Your task to perform on an android device: show emergency info Image 0: 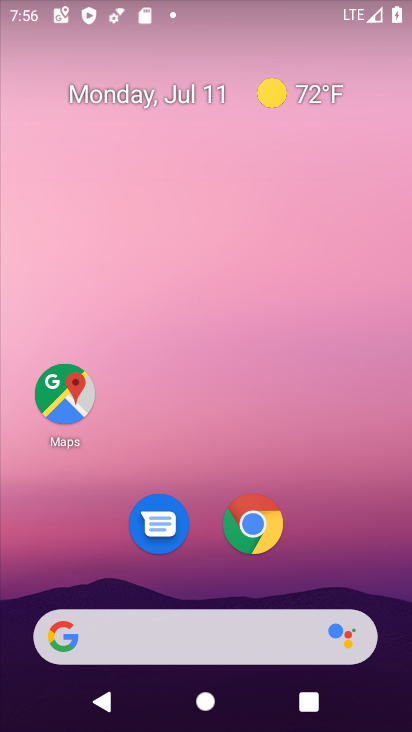
Step 0: drag from (329, 522) to (328, 3)
Your task to perform on an android device: show emergency info Image 1: 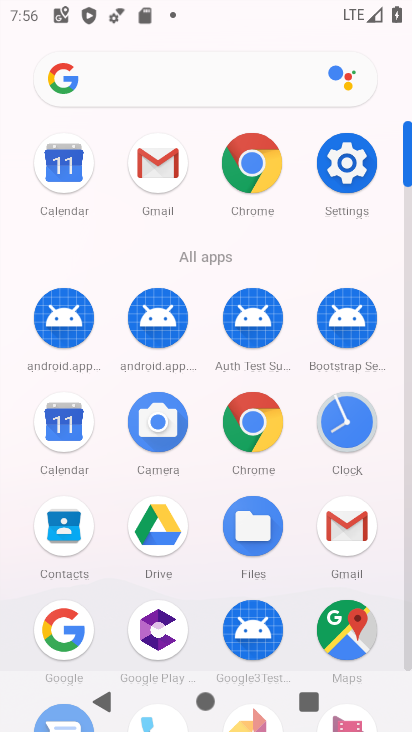
Step 1: click (349, 163)
Your task to perform on an android device: show emergency info Image 2: 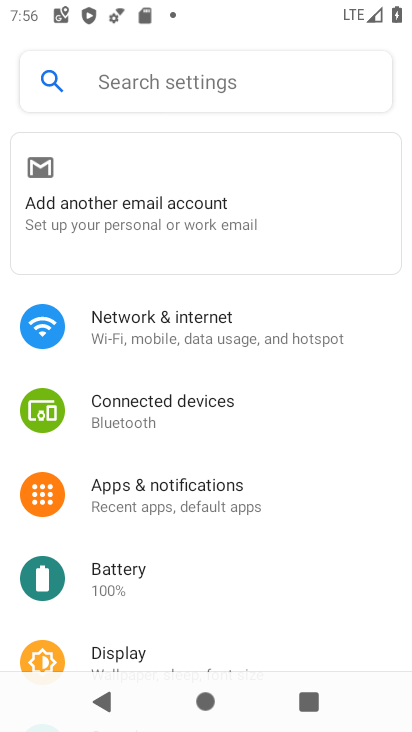
Step 2: drag from (218, 599) to (230, 0)
Your task to perform on an android device: show emergency info Image 3: 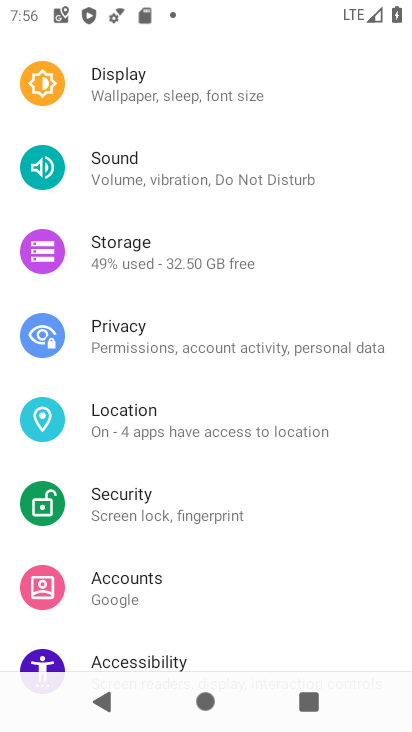
Step 3: drag from (236, 626) to (248, 22)
Your task to perform on an android device: show emergency info Image 4: 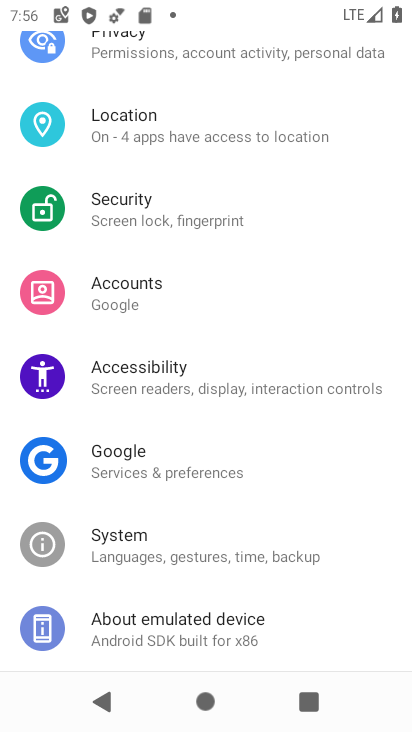
Step 4: click (254, 622)
Your task to perform on an android device: show emergency info Image 5: 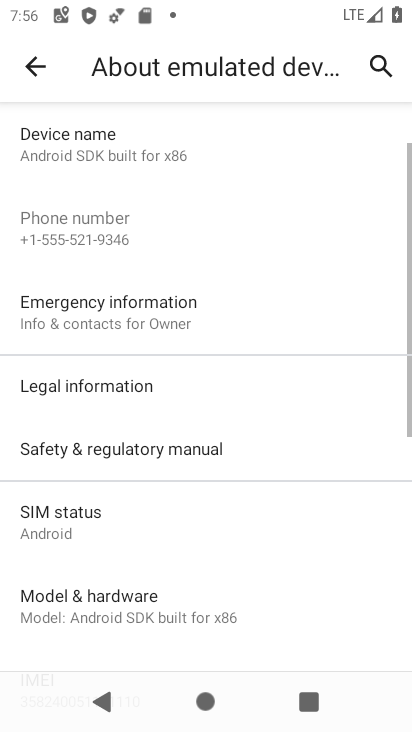
Step 5: click (155, 306)
Your task to perform on an android device: show emergency info Image 6: 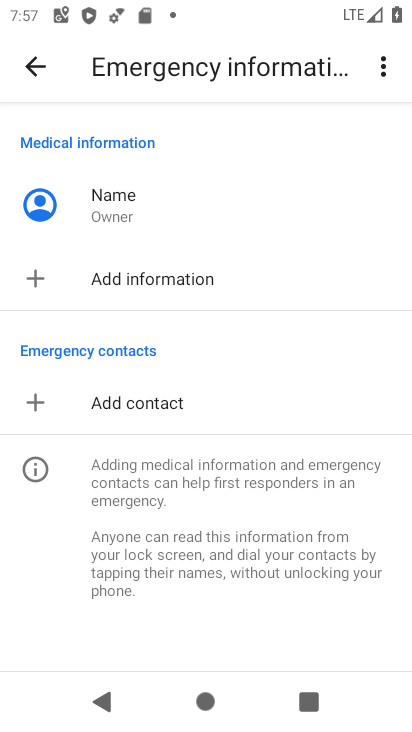
Step 6: task complete